Your task to perform on an android device: Open settings Image 0: 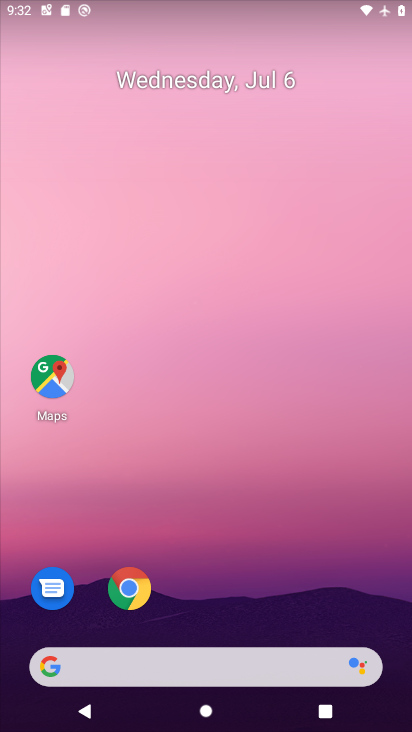
Step 0: drag from (158, 676) to (308, 98)
Your task to perform on an android device: Open settings Image 1: 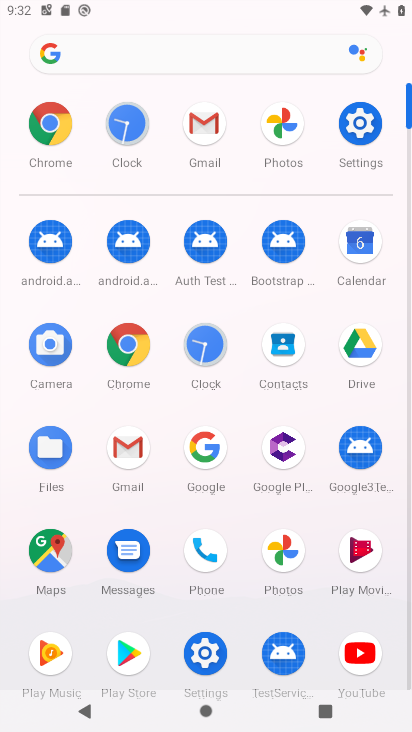
Step 1: click (362, 116)
Your task to perform on an android device: Open settings Image 2: 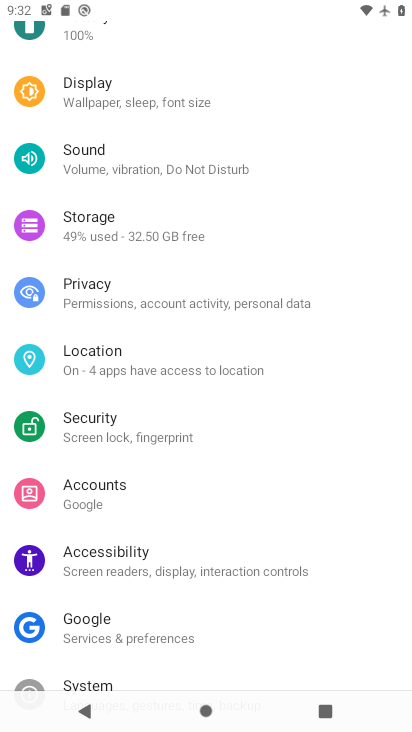
Step 2: task complete